Your task to perform on an android device: stop showing notifications on the lock screen Image 0: 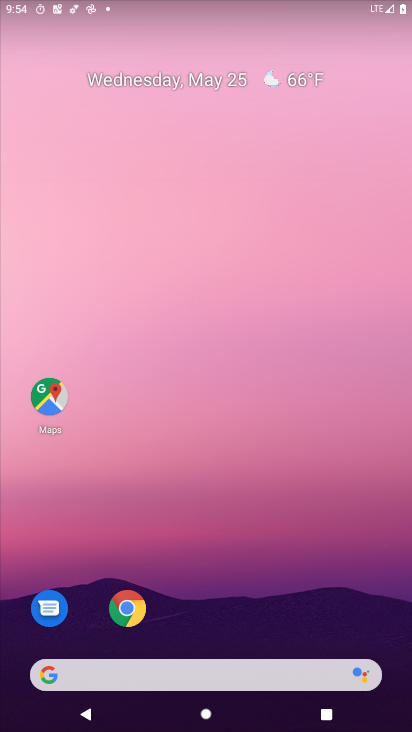
Step 0: drag from (192, 725) to (187, 170)
Your task to perform on an android device: stop showing notifications on the lock screen Image 1: 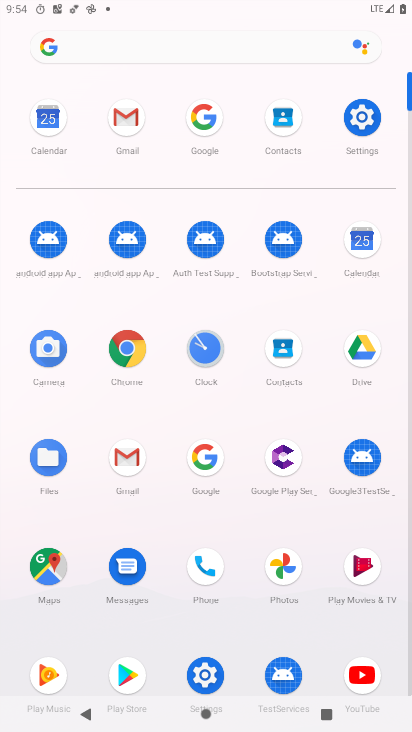
Step 1: click (369, 117)
Your task to perform on an android device: stop showing notifications on the lock screen Image 2: 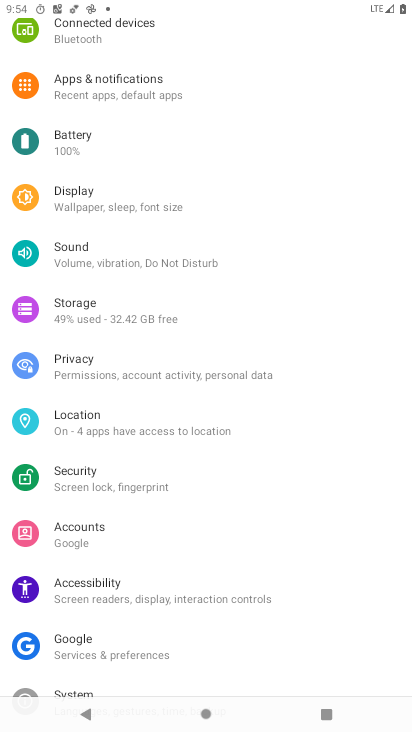
Step 2: click (105, 83)
Your task to perform on an android device: stop showing notifications on the lock screen Image 3: 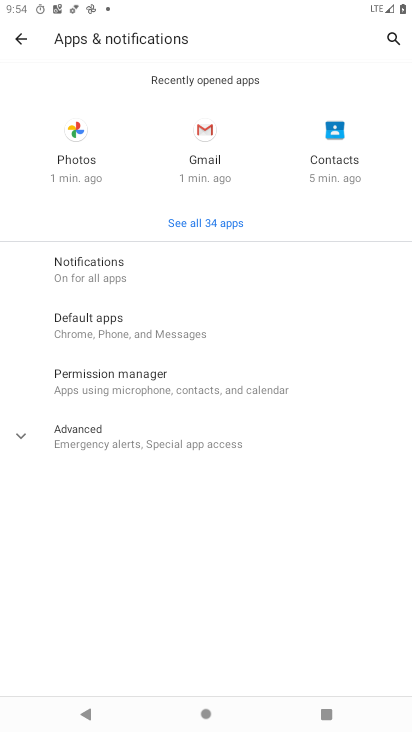
Step 3: click (71, 267)
Your task to perform on an android device: stop showing notifications on the lock screen Image 4: 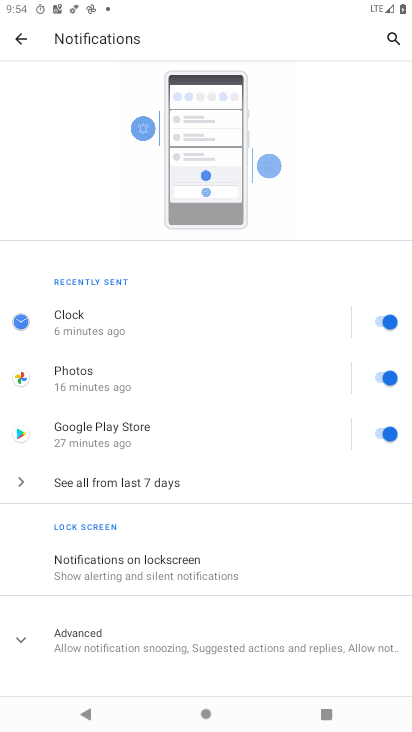
Step 4: click (149, 568)
Your task to perform on an android device: stop showing notifications on the lock screen Image 5: 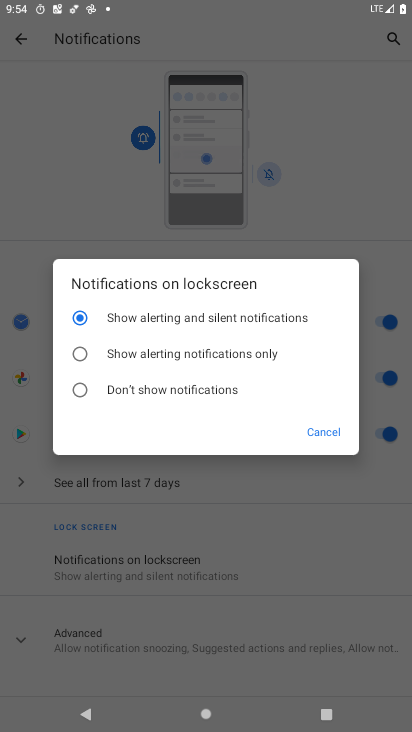
Step 5: click (79, 389)
Your task to perform on an android device: stop showing notifications on the lock screen Image 6: 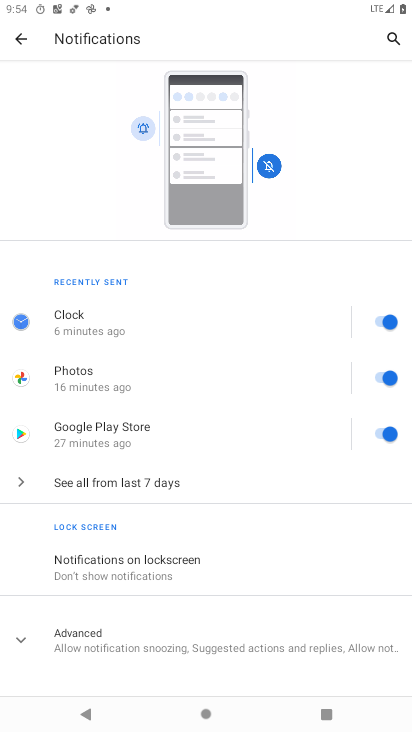
Step 6: task complete